Your task to perform on an android device: Open ESPN.com Image 0: 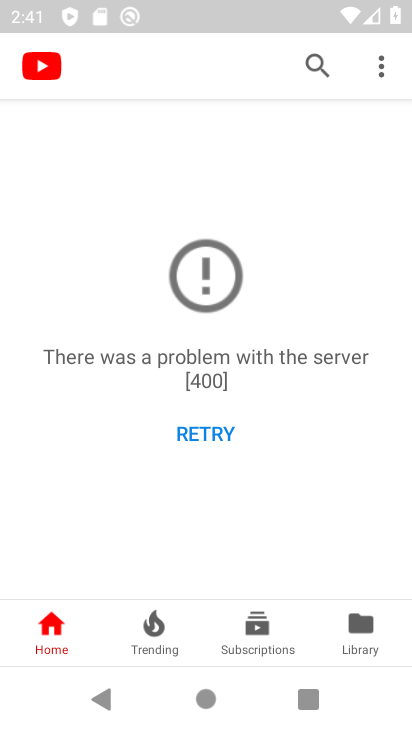
Step 0: press home button
Your task to perform on an android device: Open ESPN.com Image 1: 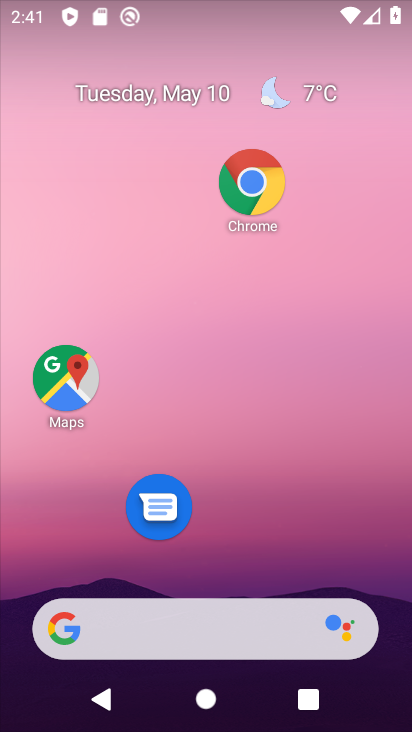
Step 1: click (257, 216)
Your task to perform on an android device: Open ESPN.com Image 2: 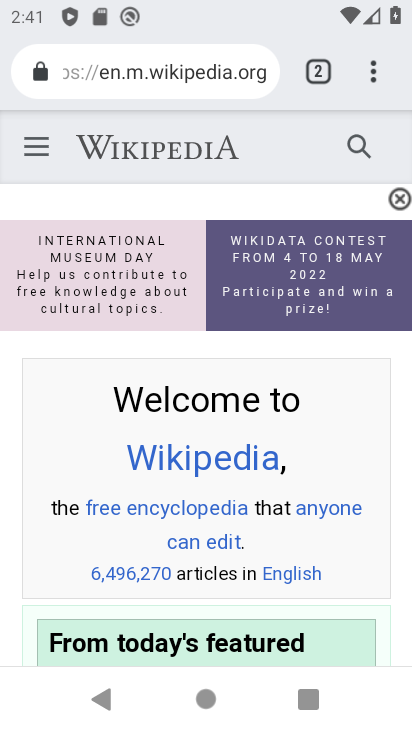
Step 2: click (141, 71)
Your task to perform on an android device: Open ESPN.com Image 3: 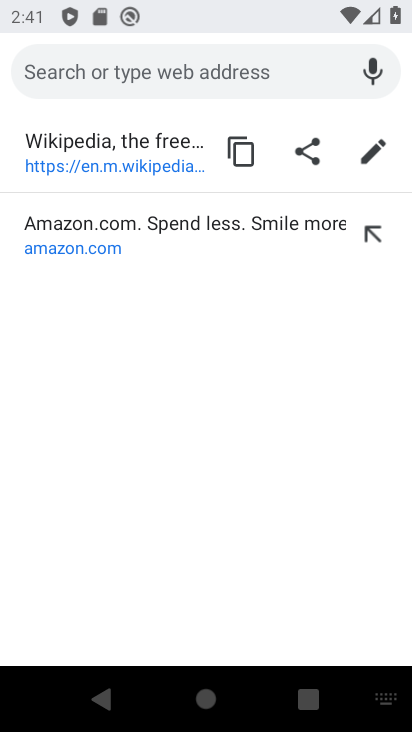
Step 3: type "espn"
Your task to perform on an android device: Open ESPN.com Image 4: 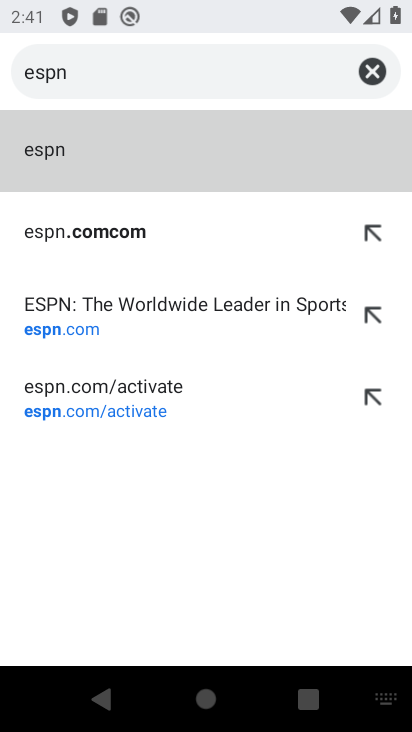
Step 4: click (261, 238)
Your task to perform on an android device: Open ESPN.com Image 5: 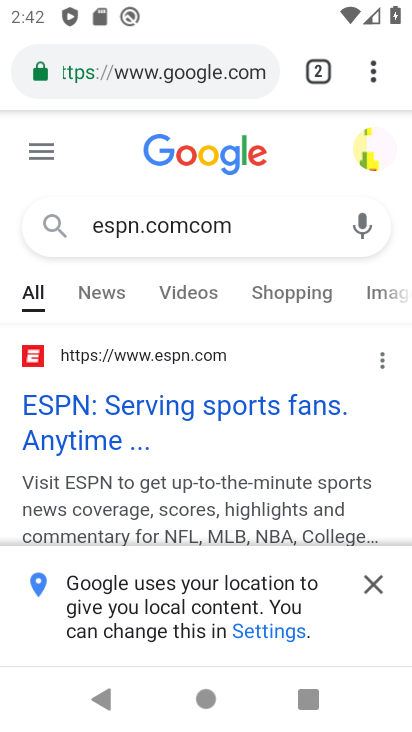
Step 5: click (138, 396)
Your task to perform on an android device: Open ESPN.com Image 6: 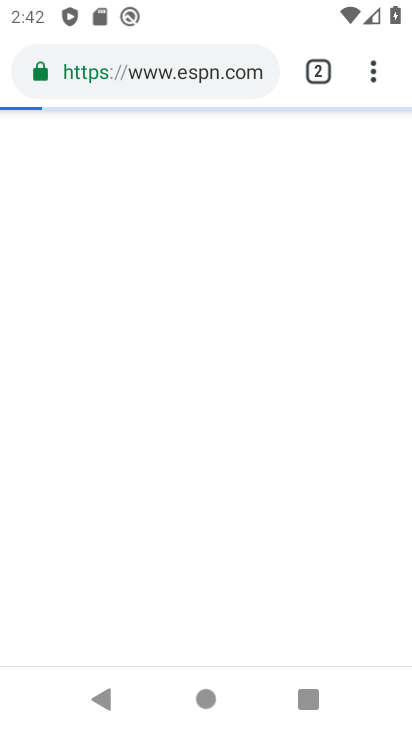
Step 6: task complete